Your task to perform on an android device: change the upload size in google photos Image 0: 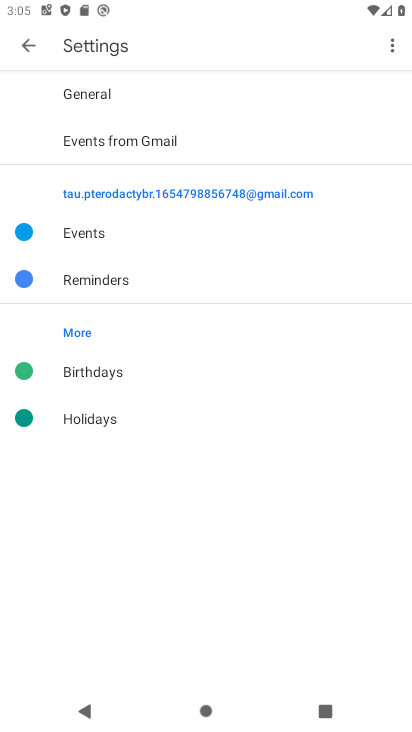
Step 0: press home button
Your task to perform on an android device: change the upload size in google photos Image 1: 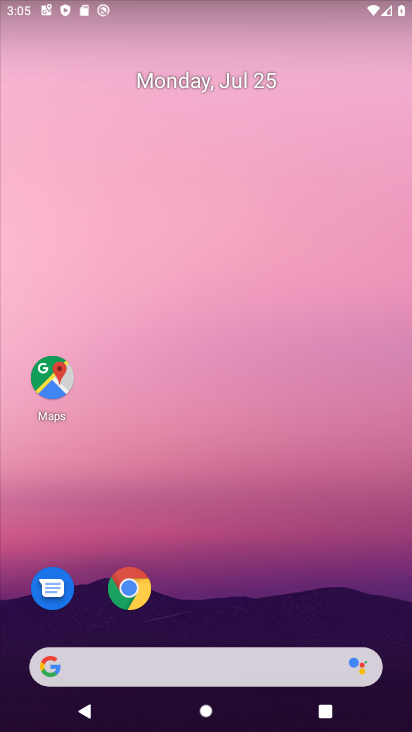
Step 1: drag from (346, 570) to (165, 18)
Your task to perform on an android device: change the upload size in google photos Image 2: 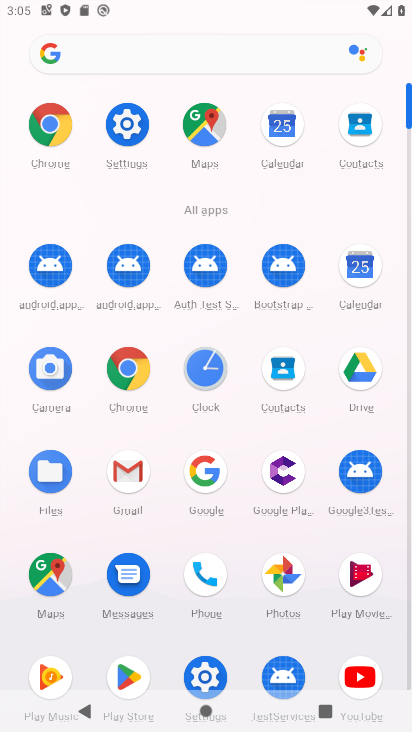
Step 2: click (275, 573)
Your task to perform on an android device: change the upload size in google photos Image 3: 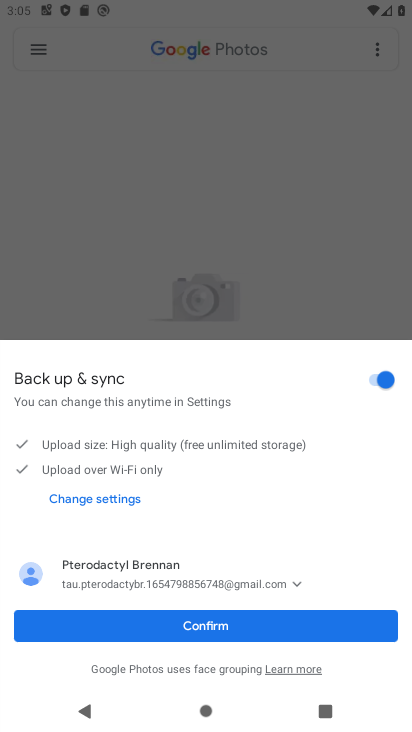
Step 3: click (266, 613)
Your task to perform on an android device: change the upload size in google photos Image 4: 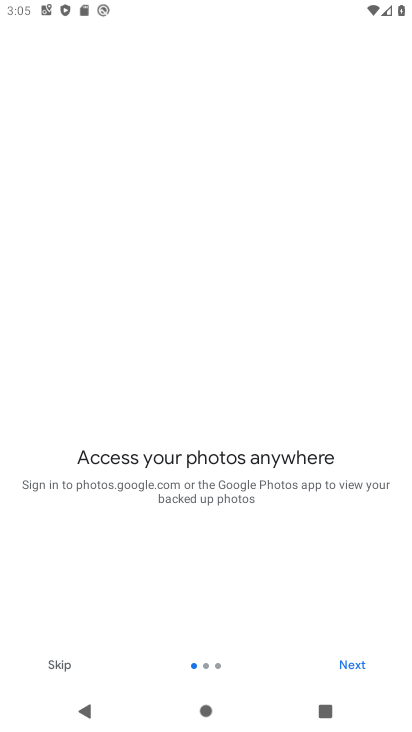
Step 4: click (369, 664)
Your task to perform on an android device: change the upload size in google photos Image 5: 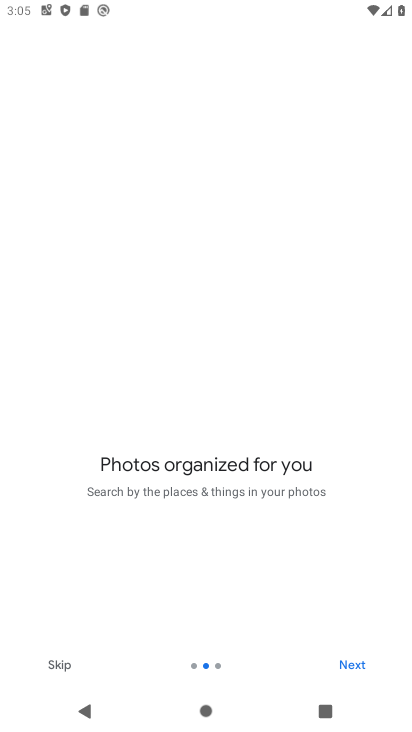
Step 5: click (357, 658)
Your task to perform on an android device: change the upload size in google photos Image 6: 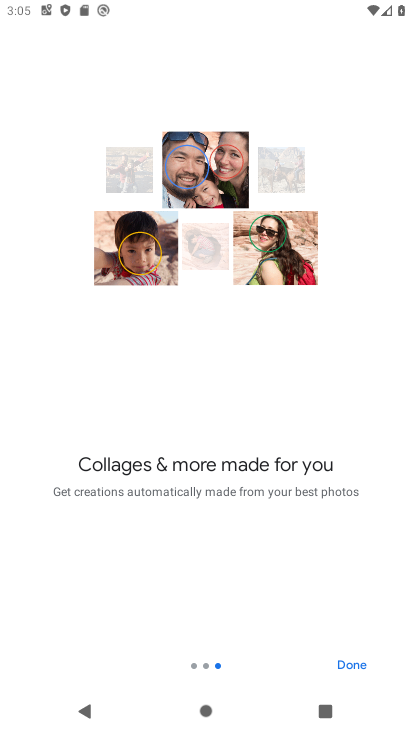
Step 6: click (357, 663)
Your task to perform on an android device: change the upload size in google photos Image 7: 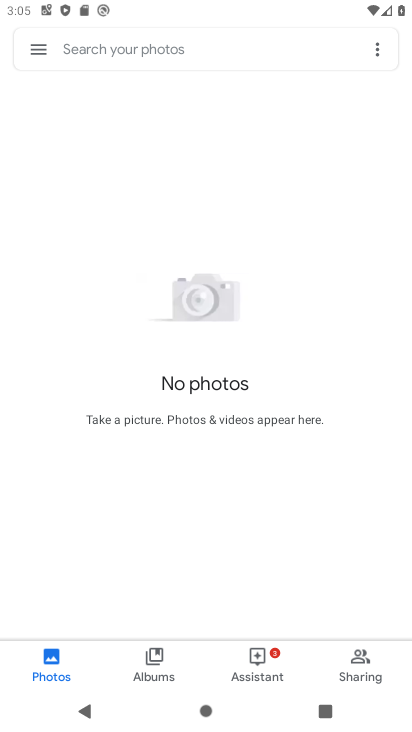
Step 7: click (35, 41)
Your task to perform on an android device: change the upload size in google photos Image 8: 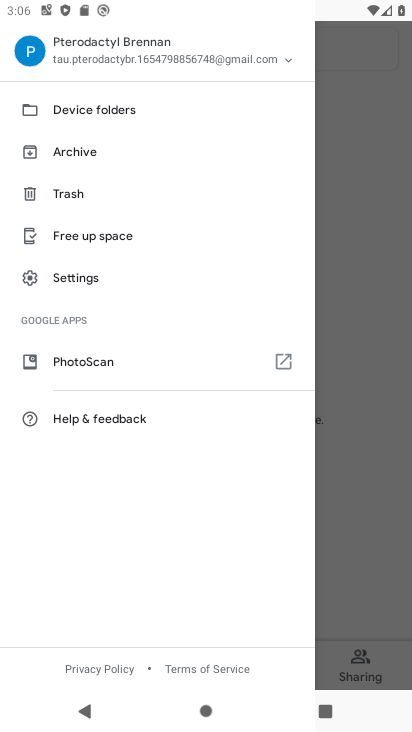
Step 8: click (82, 282)
Your task to perform on an android device: change the upload size in google photos Image 9: 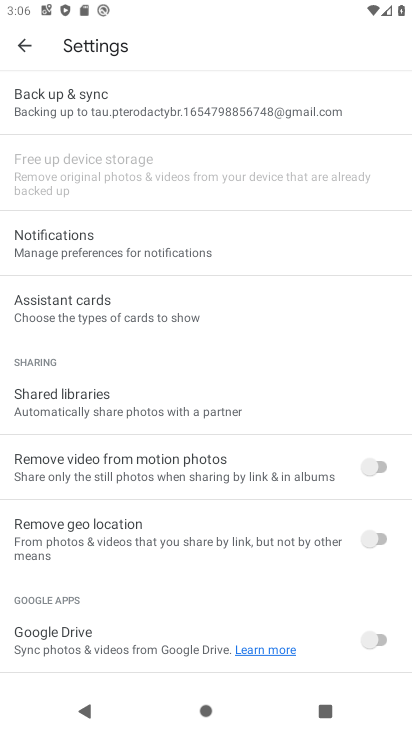
Step 9: drag from (239, 615) to (212, 95)
Your task to perform on an android device: change the upload size in google photos Image 10: 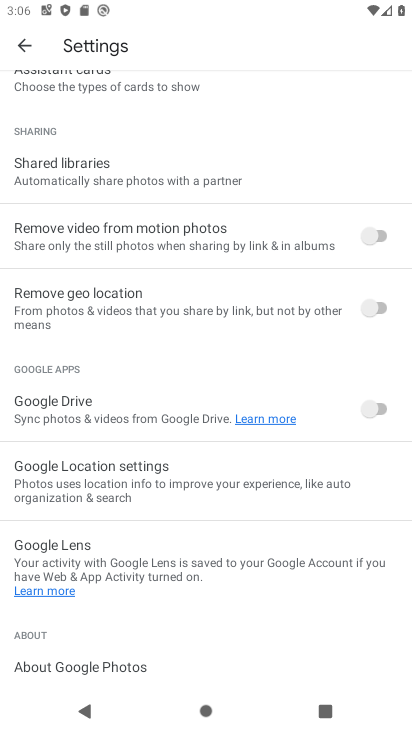
Step 10: drag from (220, 110) to (275, 640)
Your task to perform on an android device: change the upload size in google photos Image 11: 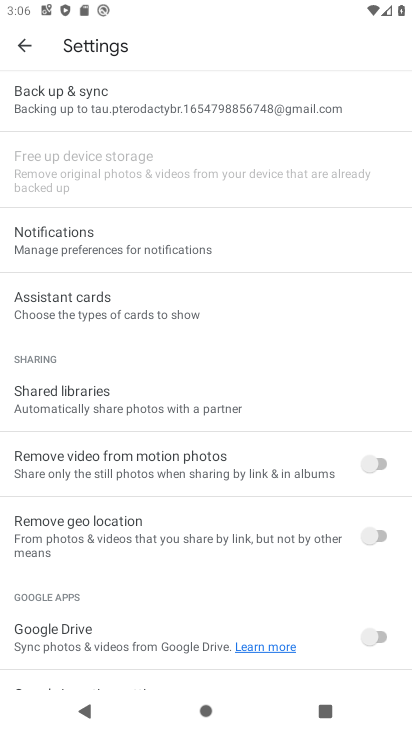
Step 11: click (144, 98)
Your task to perform on an android device: change the upload size in google photos Image 12: 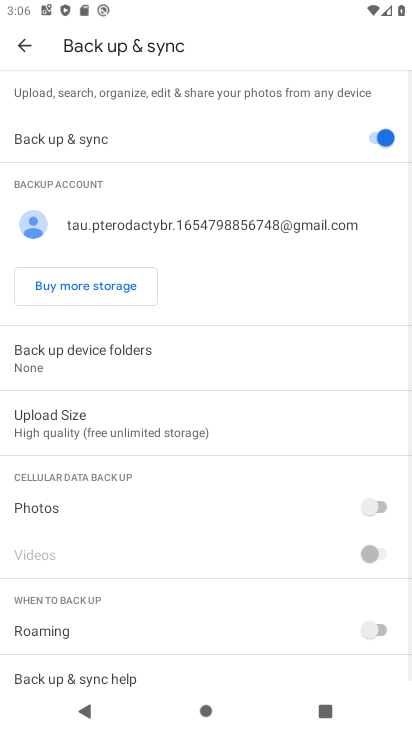
Step 12: click (165, 424)
Your task to perform on an android device: change the upload size in google photos Image 13: 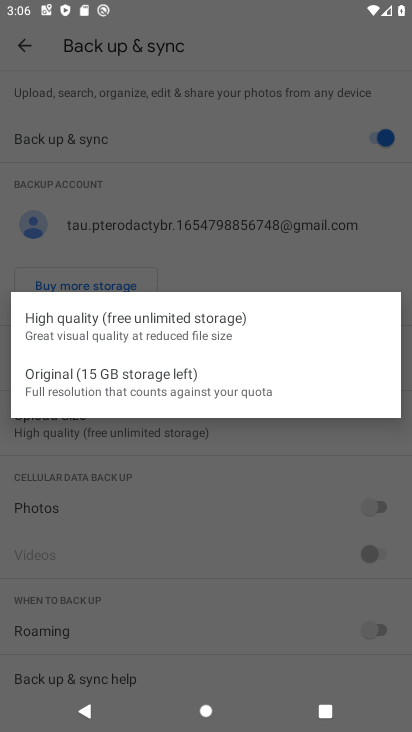
Step 13: click (135, 384)
Your task to perform on an android device: change the upload size in google photos Image 14: 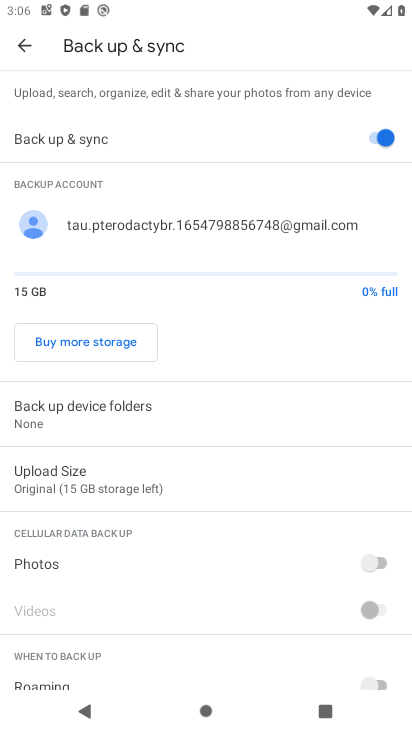
Step 14: task complete